Your task to perform on an android device: turn notification dots on Image 0: 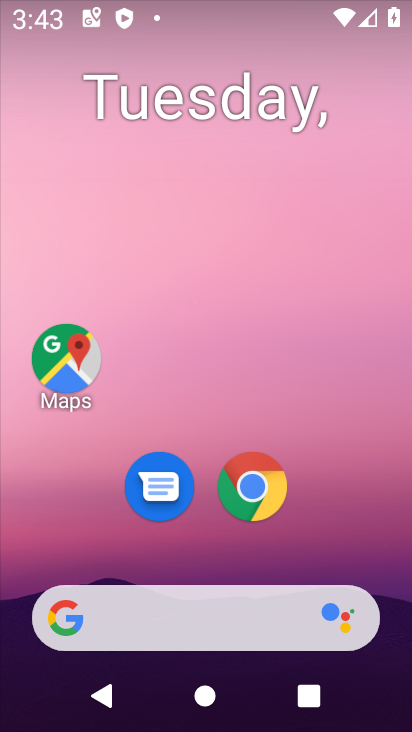
Step 0: drag from (199, 532) to (269, 1)
Your task to perform on an android device: turn notification dots on Image 1: 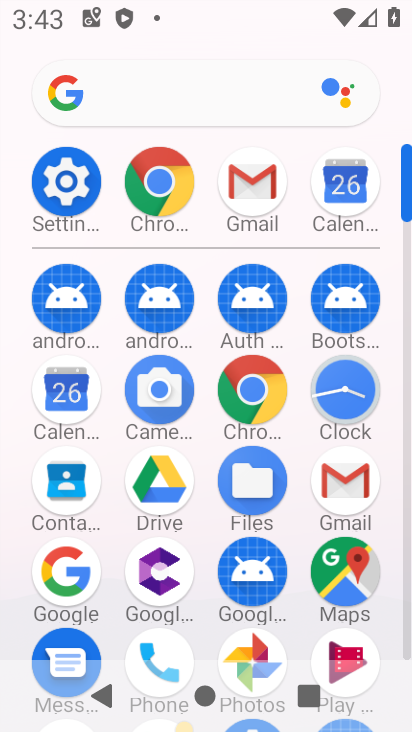
Step 1: click (59, 184)
Your task to perform on an android device: turn notification dots on Image 2: 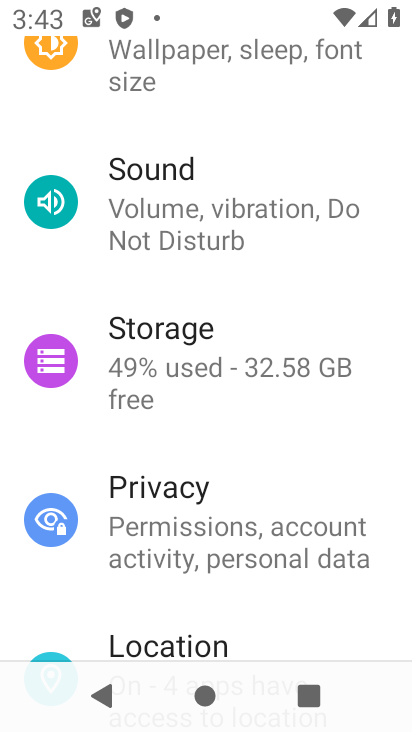
Step 2: drag from (287, 179) to (181, 654)
Your task to perform on an android device: turn notification dots on Image 3: 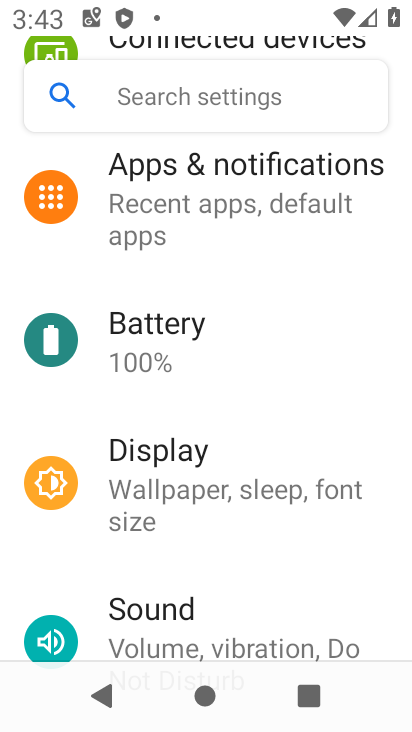
Step 3: click (243, 195)
Your task to perform on an android device: turn notification dots on Image 4: 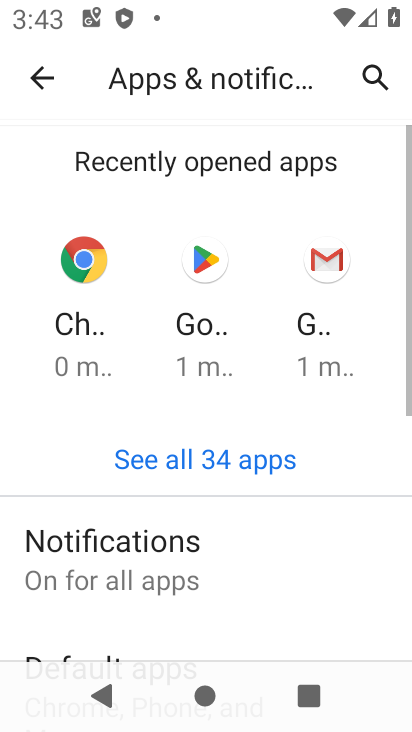
Step 4: click (167, 574)
Your task to perform on an android device: turn notification dots on Image 5: 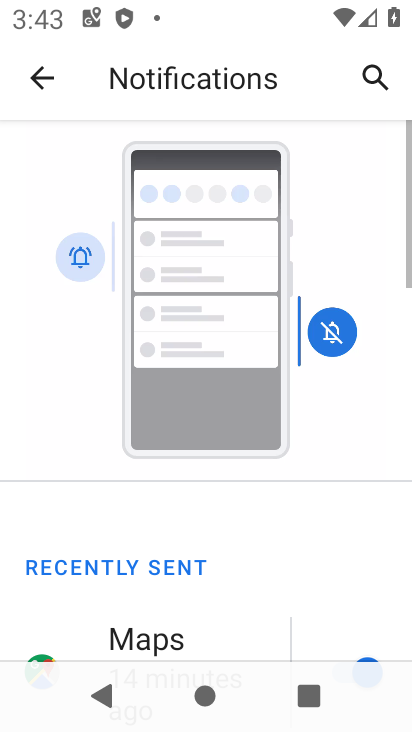
Step 5: drag from (167, 574) to (294, 93)
Your task to perform on an android device: turn notification dots on Image 6: 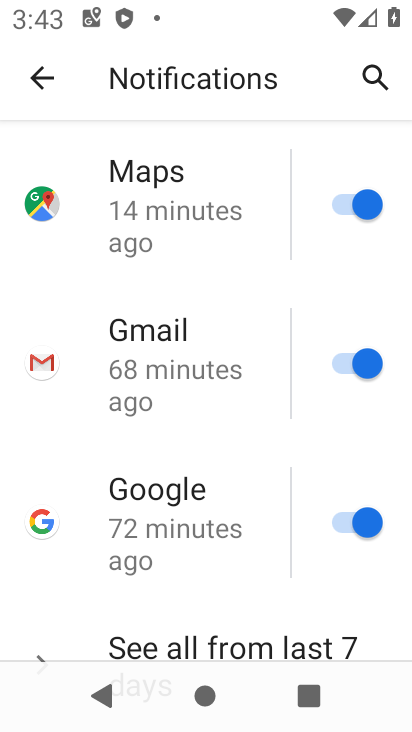
Step 6: drag from (151, 638) to (268, 65)
Your task to perform on an android device: turn notification dots on Image 7: 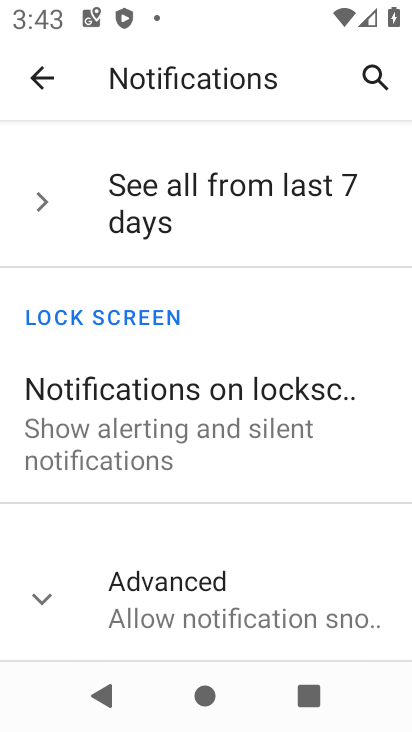
Step 7: click (182, 622)
Your task to perform on an android device: turn notification dots on Image 8: 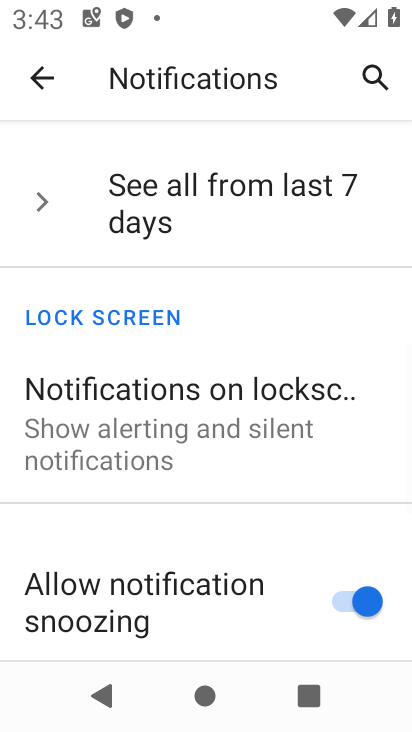
Step 8: task complete